Your task to perform on an android device: Turn on the flashlight Image 0: 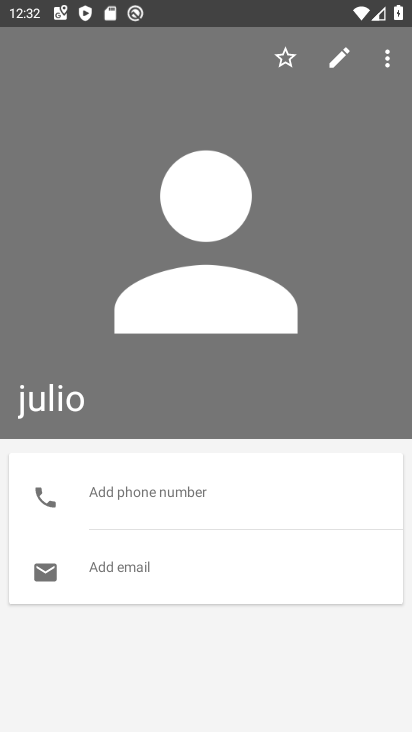
Step 0: press home button
Your task to perform on an android device: Turn on the flashlight Image 1: 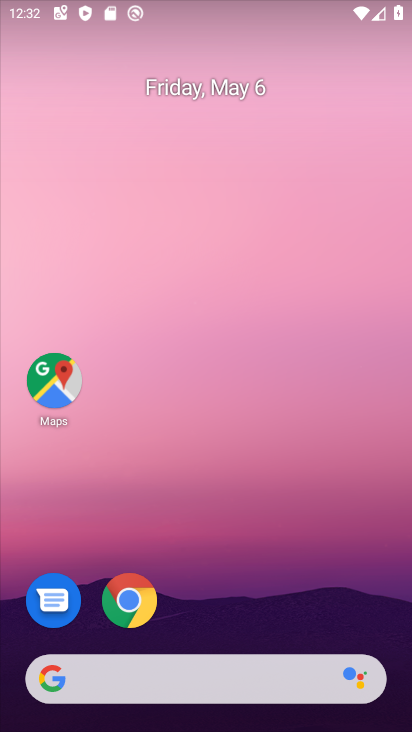
Step 1: drag from (320, 608) to (273, 78)
Your task to perform on an android device: Turn on the flashlight Image 2: 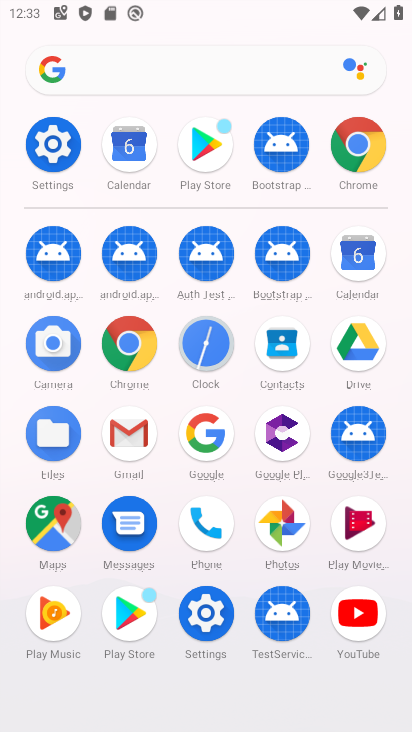
Step 2: click (40, 165)
Your task to perform on an android device: Turn on the flashlight Image 3: 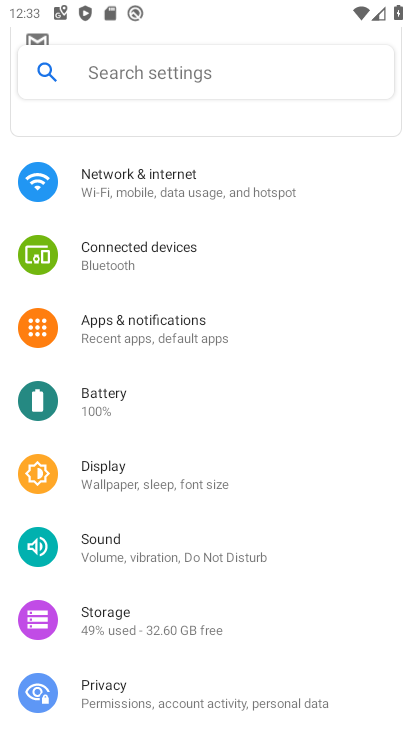
Step 3: task complete